Your task to perform on an android device: turn on notifications settings in the gmail app Image 0: 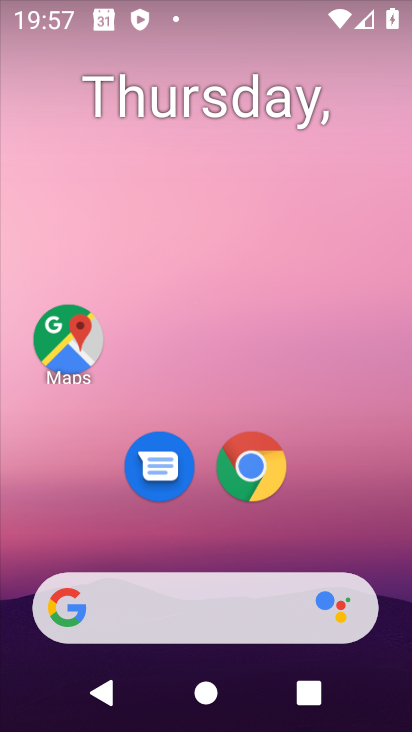
Step 0: drag from (324, 541) to (255, 171)
Your task to perform on an android device: turn on notifications settings in the gmail app Image 1: 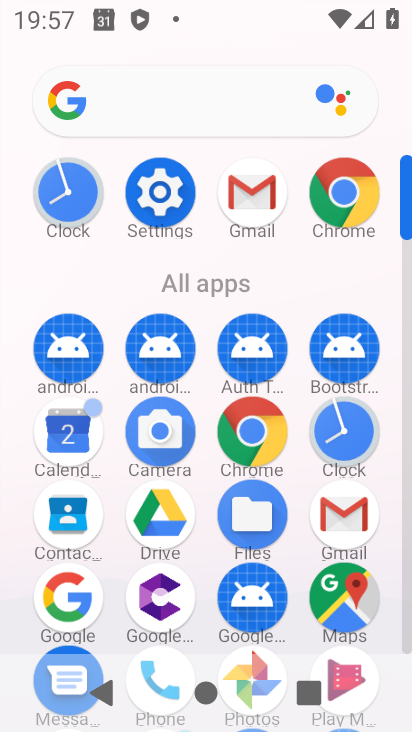
Step 1: click (255, 171)
Your task to perform on an android device: turn on notifications settings in the gmail app Image 2: 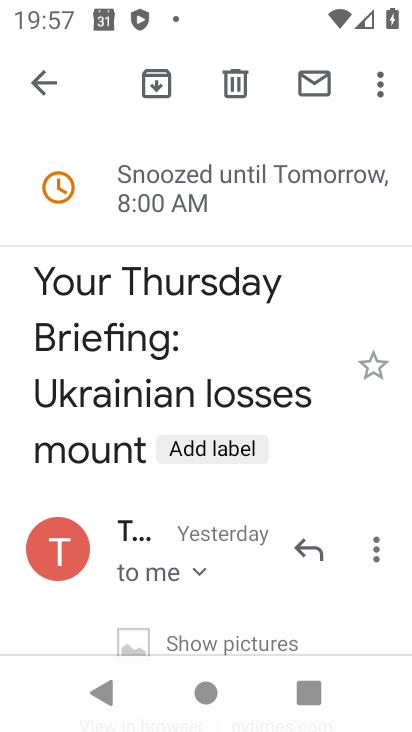
Step 2: click (53, 91)
Your task to perform on an android device: turn on notifications settings in the gmail app Image 3: 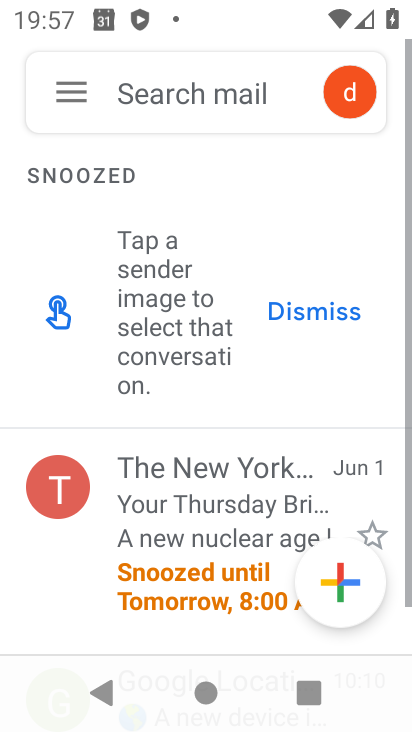
Step 3: click (55, 89)
Your task to perform on an android device: turn on notifications settings in the gmail app Image 4: 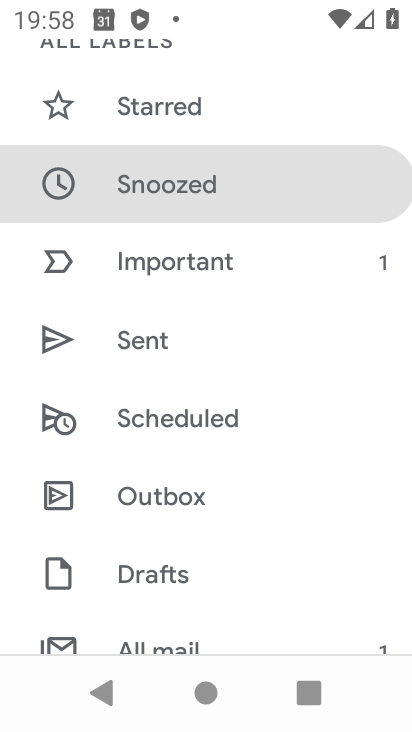
Step 4: drag from (55, 89) to (169, 729)
Your task to perform on an android device: turn on notifications settings in the gmail app Image 5: 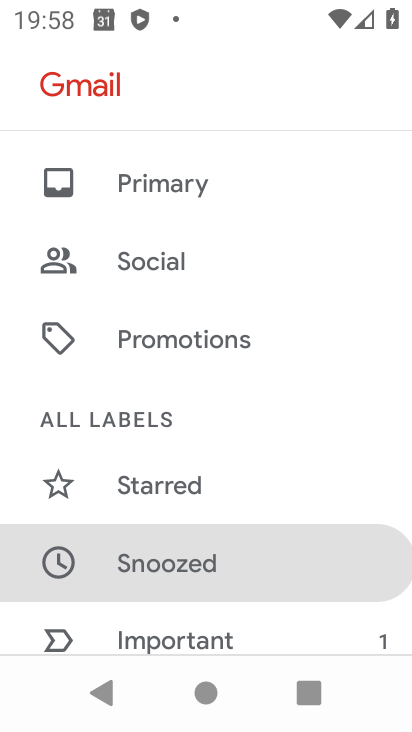
Step 5: drag from (307, 511) to (327, 25)
Your task to perform on an android device: turn on notifications settings in the gmail app Image 6: 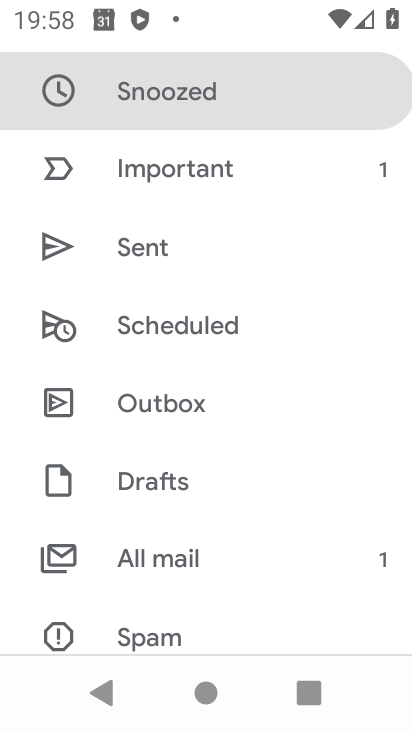
Step 6: drag from (293, 619) to (282, 108)
Your task to perform on an android device: turn on notifications settings in the gmail app Image 7: 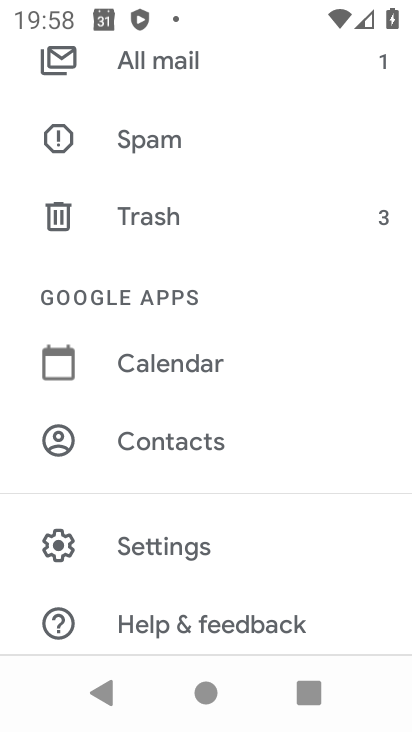
Step 7: click (201, 535)
Your task to perform on an android device: turn on notifications settings in the gmail app Image 8: 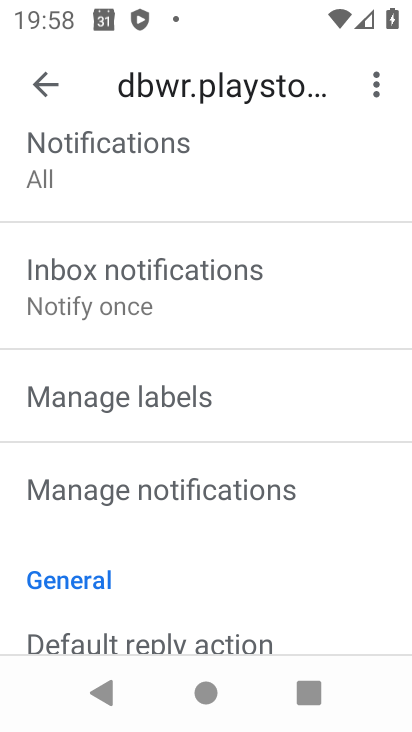
Step 8: click (255, 480)
Your task to perform on an android device: turn on notifications settings in the gmail app Image 9: 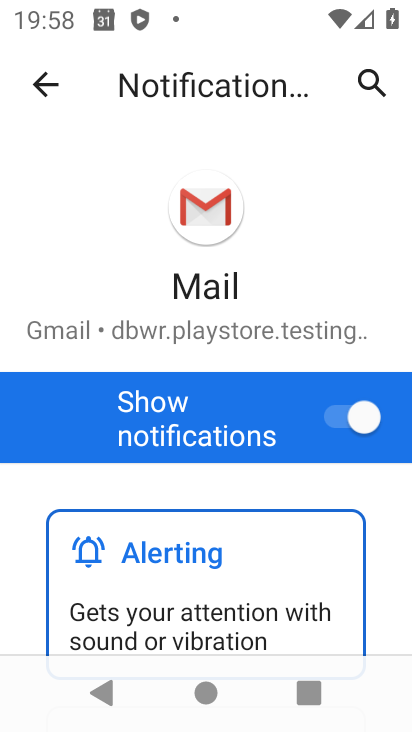
Step 9: task complete